Your task to perform on an android device: add a contact in the contacts app Image 0: 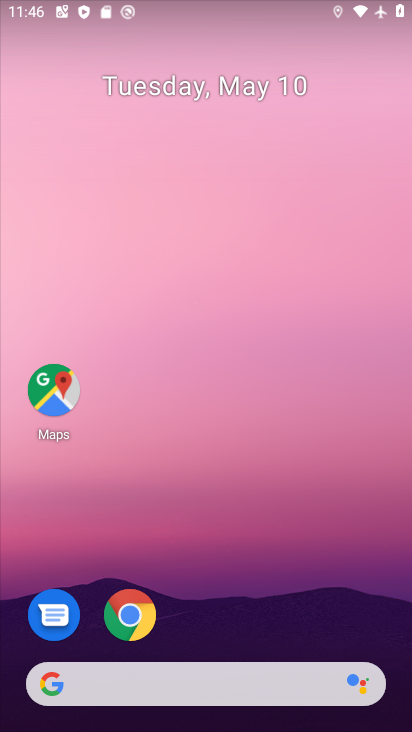
Step 0: drag from (199, 555) to (185, 0)
Your task to perform on an android device: add a contact in the contacts app Image 1: 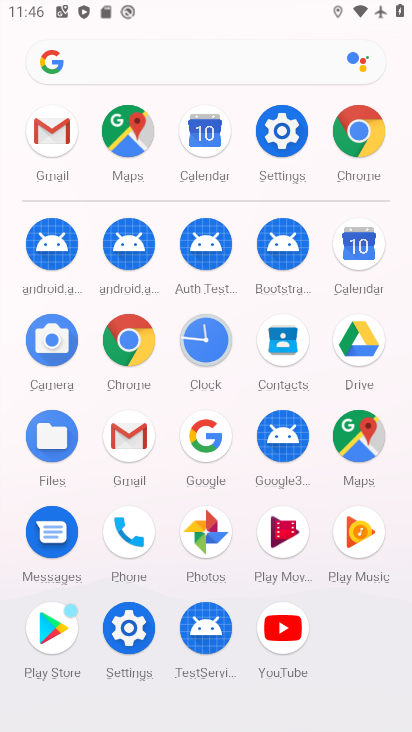
Step 1: drag from (1, 602) to (30, 296)
Your task to perform on an android device: add a contact in the contacts app Image 2: 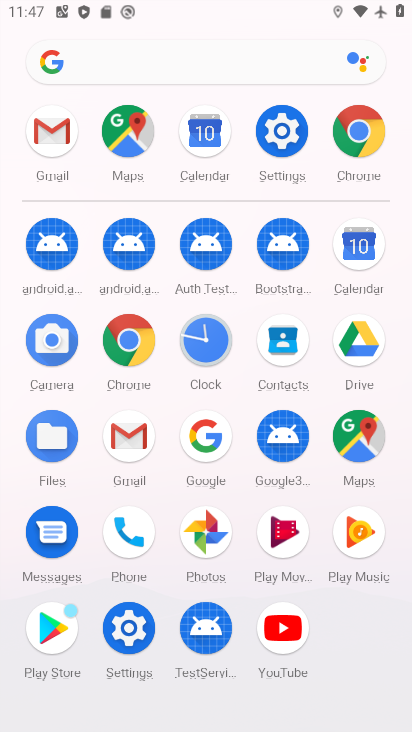
Step 2: click (283, 334)
Your task to perform on an android device: add a contact in the contacts app Image 3: 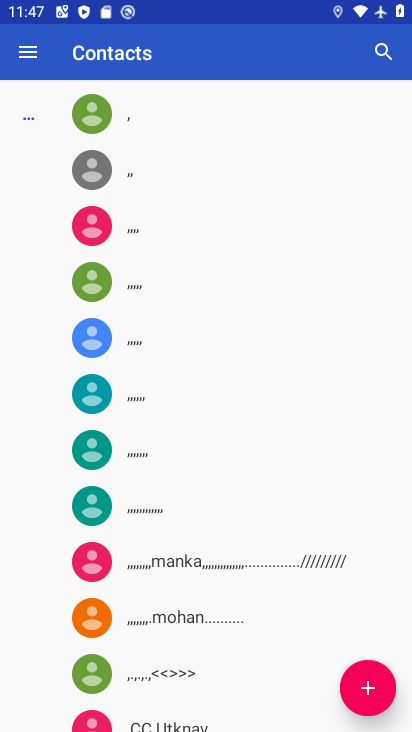
Step 3: click (368, 677)
Your task to perform on an android device: add a contact in the contacts app Image 4: 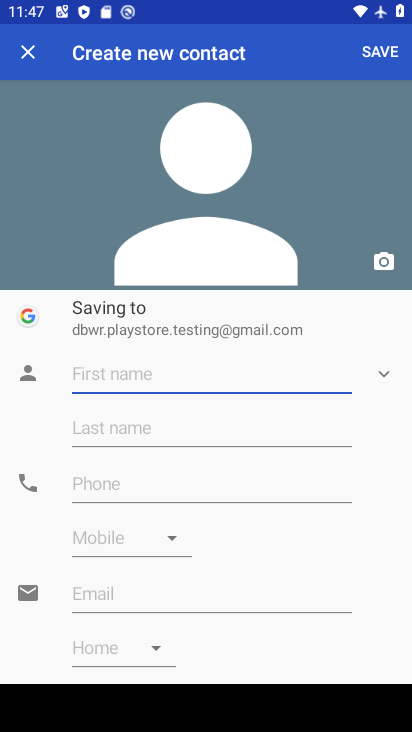
Step 4: type "Sdurt"
Your task to perform on an android device: add a contact in the contacts app Image 5: 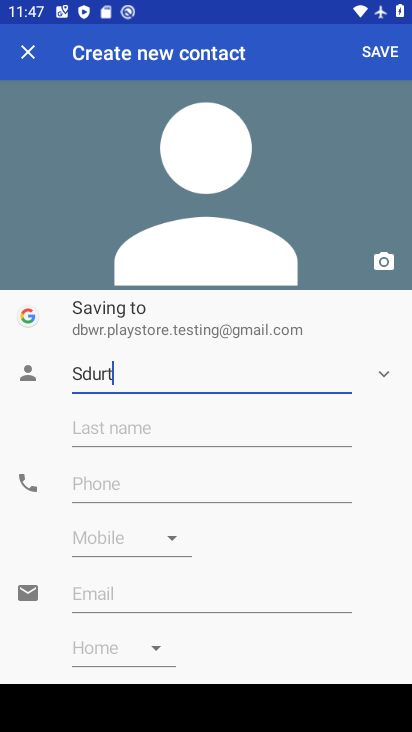
Step 5: type ""
Your task to perform on an android device: add a contact in the contacts app Image 6: 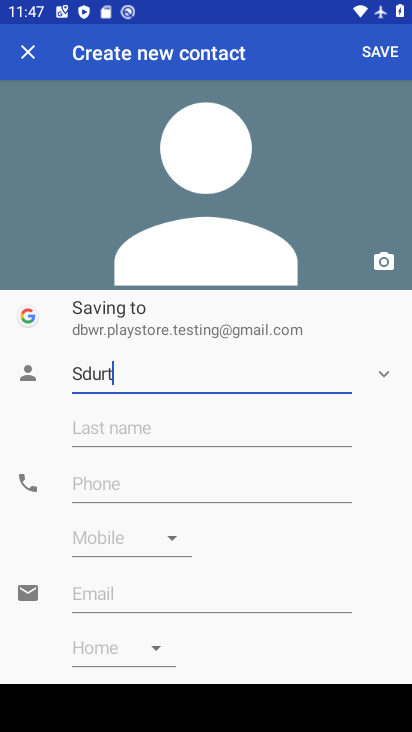
Step 6: click (155, 483)
Your task to perform on an android device: add a contact in the contacts app Image 7: 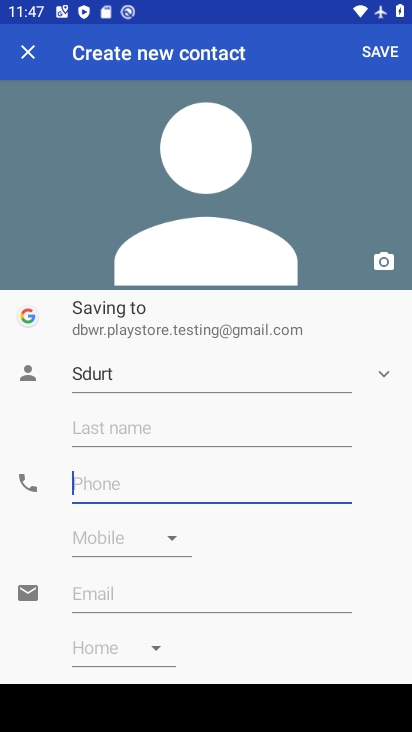
Step 7: type "65456789"
Your task to perform on an android device: add a contact in the contacts app Image 8: 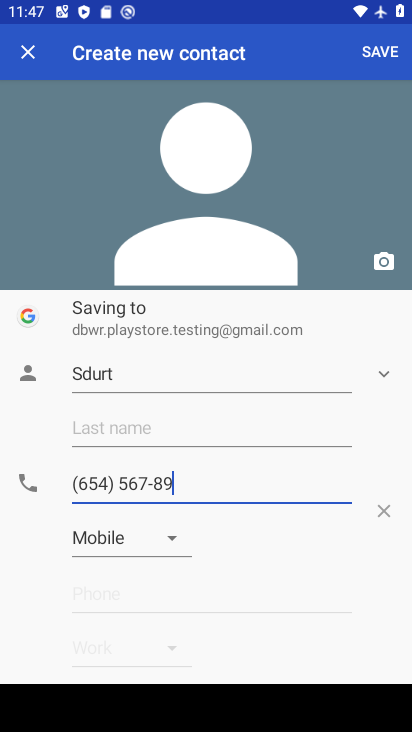
Step 8: type ""
Your task to perform on an android device: add a contact in the contacts app Image 9: 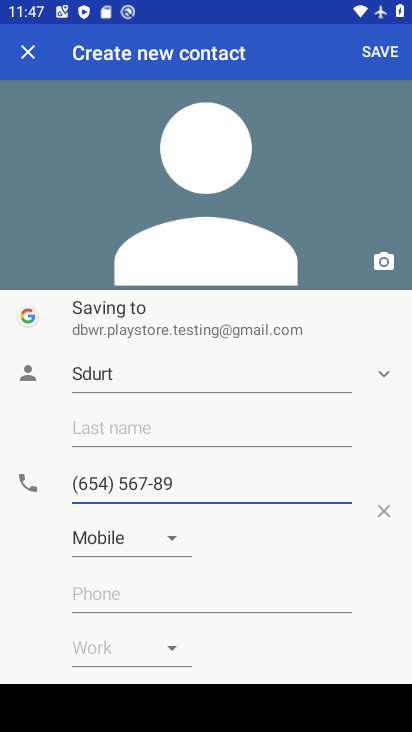
Step 9: click (370, 57)
Your task to perform on an android device: add a contact in the contacts app Image 10: 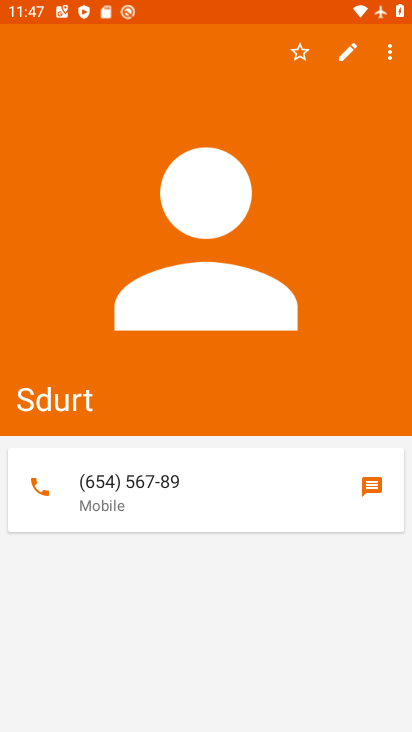
Step 10: task complete